Your task to perform on an android device: Open my contact list Image 0: 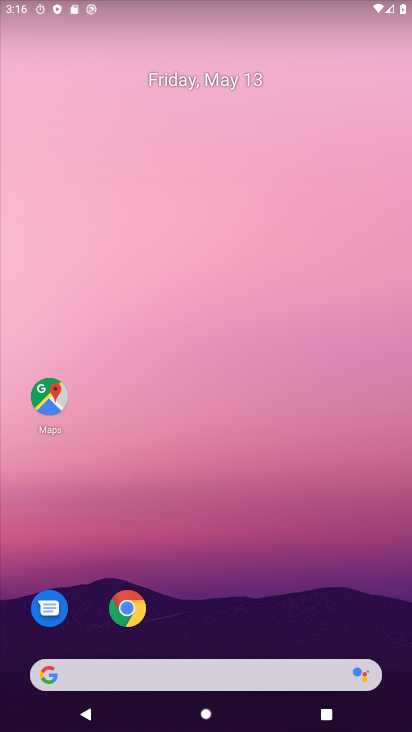
Step 0: drag from (294, 624) to (280, 52)
Your task to perform on an android device: Open my contact list Image 1: 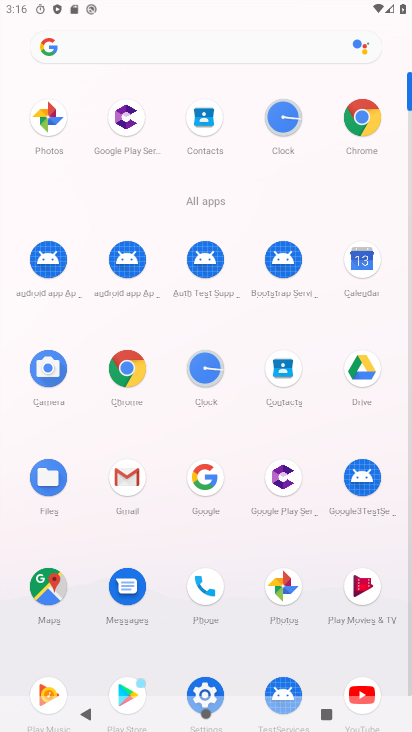
Step 1: click (290, 389)
Your task to perform on an android device: Open my contact list Image 2: 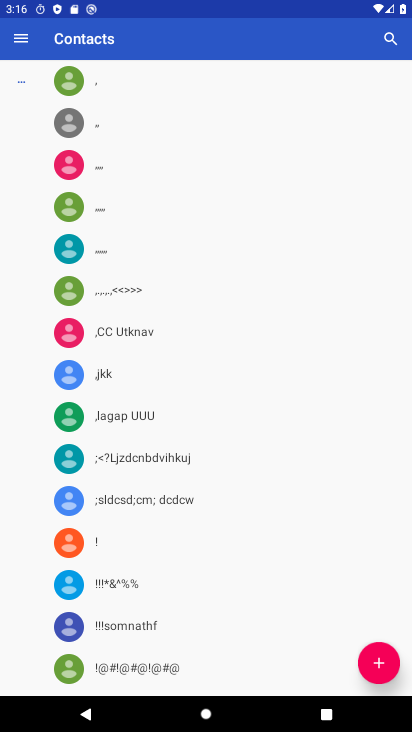
Step 2: task complete